Your task to perform on an android device: see sites visited before in the chrome app Image 0: 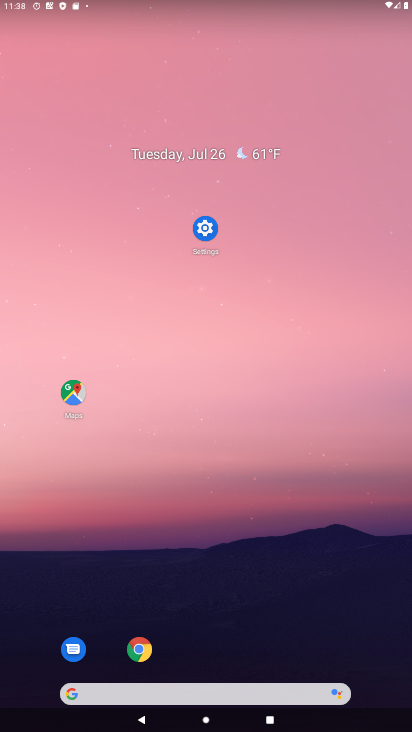
Step 0: drag from (275, 608) to (249, 391)
Your task to perform on an android device: see sites visited before in the chrome app Image 1: 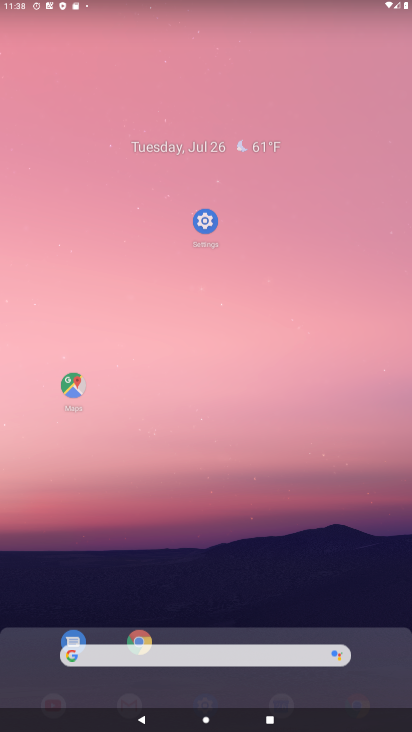
Step 1: drag from (253, 573) to (232, 330)
Your task to perform on an android device: see sites visited before in the chrome app Image 2: 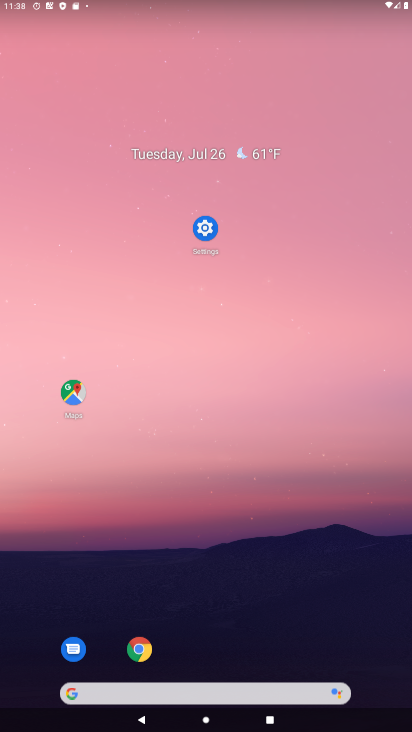
Step 2: drag from (206, 610) to (202, 255)
Your task to perform on an android device: see sites visited before in the chrome app Image 3: 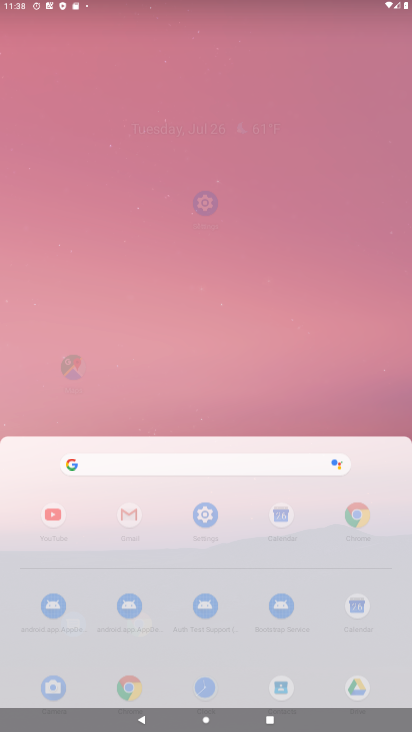
Step 3: drag from (299, 550) to (284, 0)
Your task to perform on an android device: see sites visited before in the chrome app Image 4: 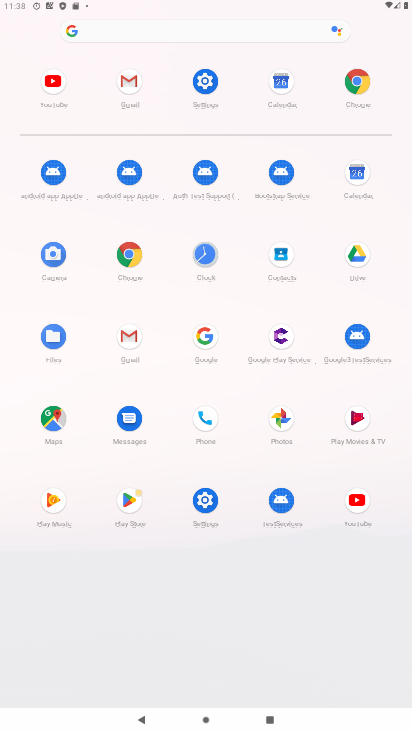
Step 4: click (358, 92)
Your task to perform on an android device: see sites visited before in the chrome app Image 5: 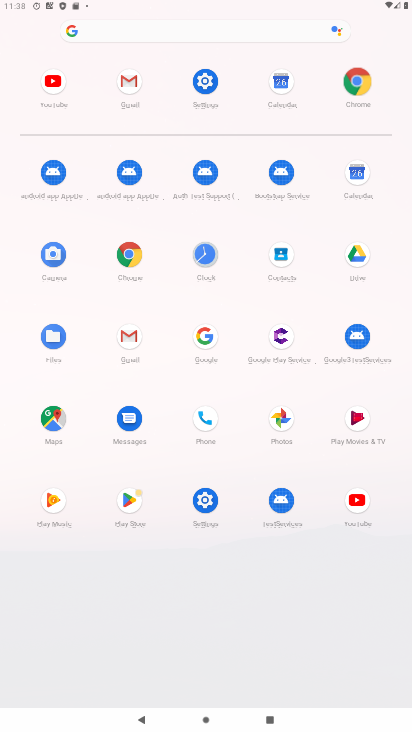
Step 5: click (355, 92)
Your task to perform on an android device: see sites visited before in the chrome app Image 6: 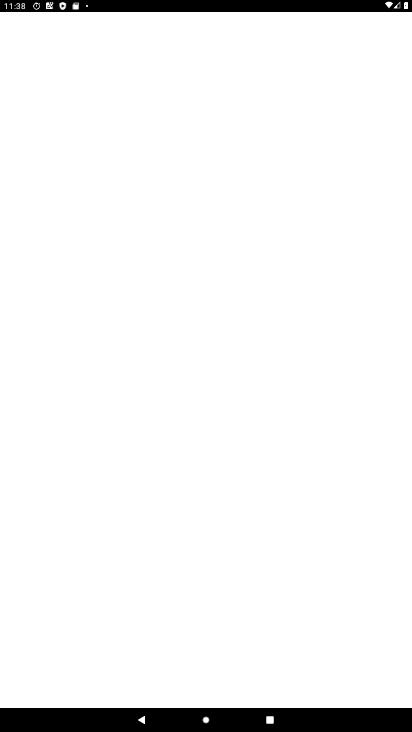
Step 6: click (354, 94)
Your task to perform on an android device: see sites visited before in the chrome app Image 7: 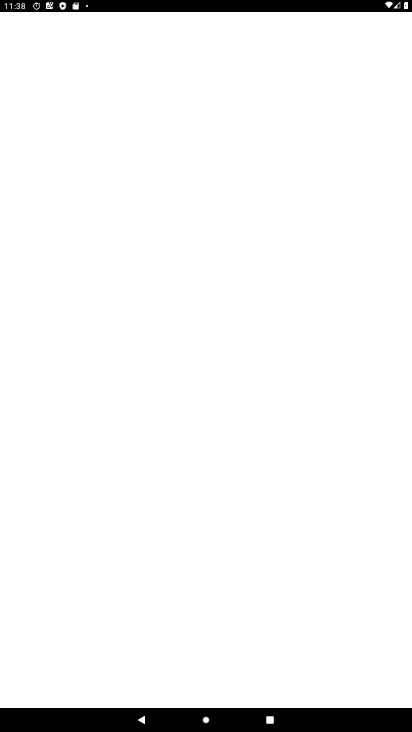
Step 7: click (354, 94)
Your task to perform on an android device: see sites visited before in the chrome app Image 8: 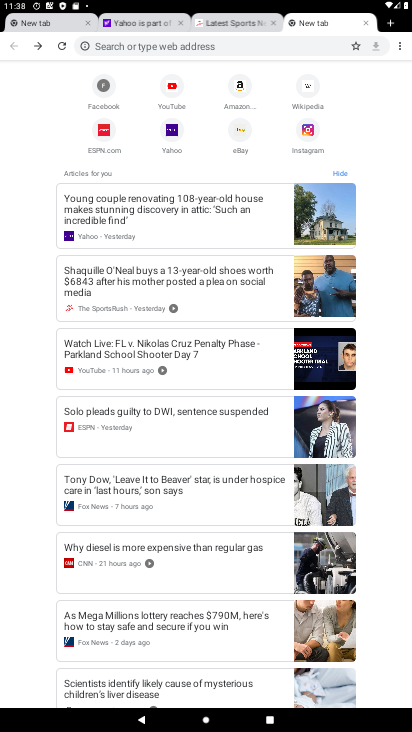
Step 8: drag from (399, 44) to (334, 115)
Your task to perform on an android device: see sites visited before in the chrome app Image 9: 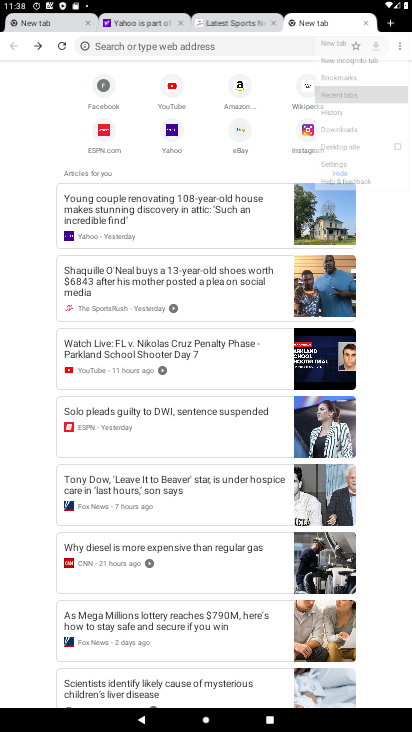
Step 9: click (331, 117)
Your task to perform on an android device: see sites visited before in the chrome app Image 10: 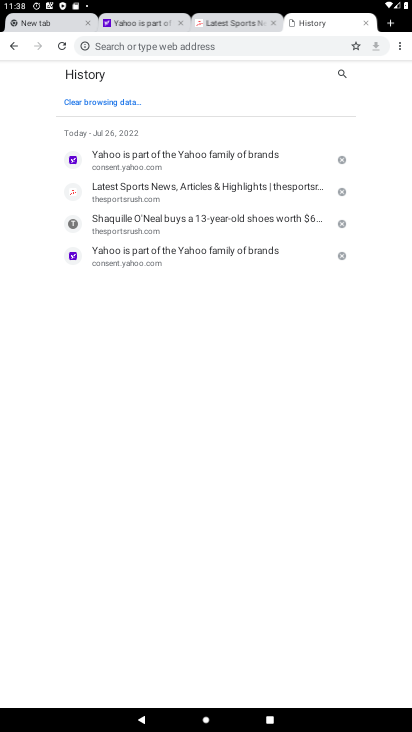
Step 10: task complete